Your task to perform on an android device: toggle notification dots Image 0: 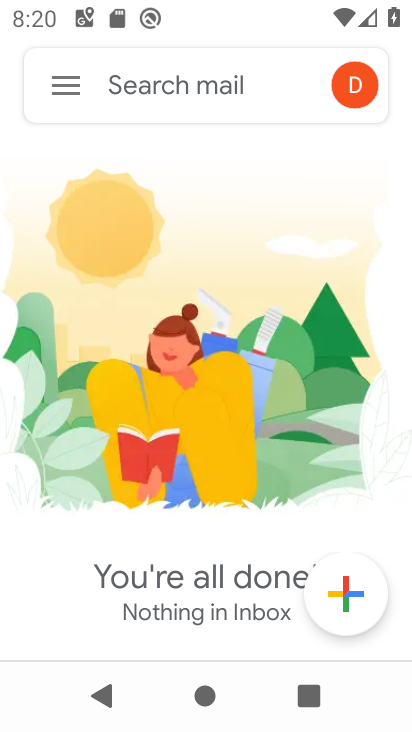
Step 0: press back button
Your task to perform on an android device: toggle notification dots Image 1: 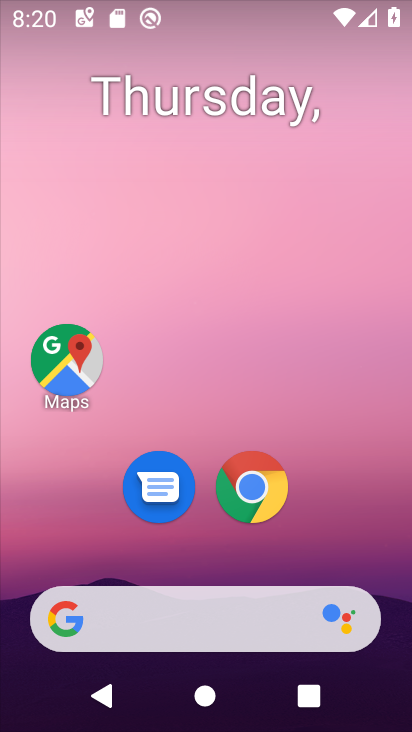
Step 1: drag from (161, 559) to (227, 19)
Your task to perform on an android device: toggle notification dots Image 2: 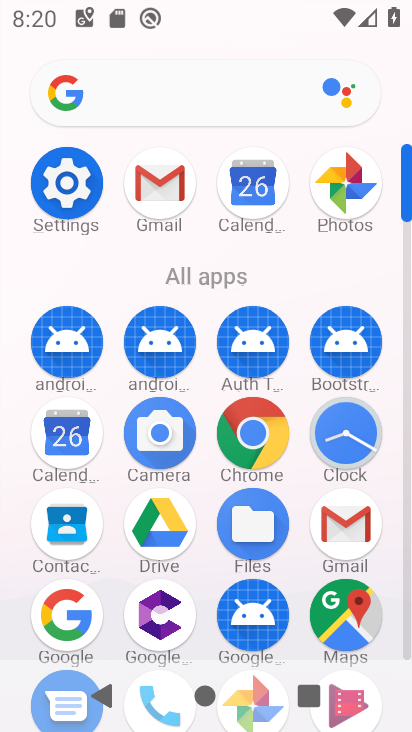
Step 2: click (54, 159)
Your task to perform on an android device: toggle notification dots Image 3: 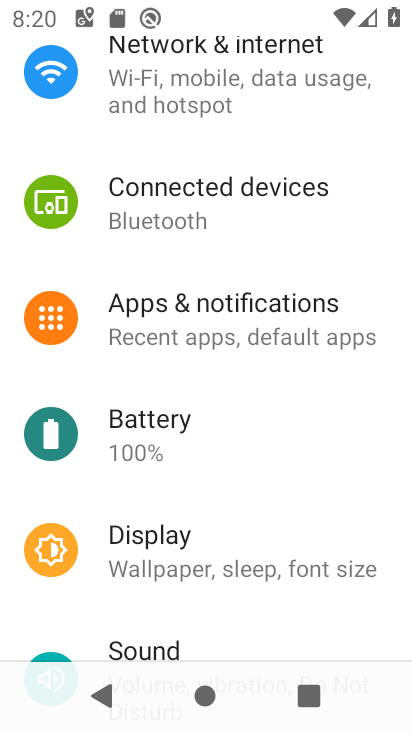
Step 3: drag from (300, 209) to (284, 467)
Your task to perform on an android device: toggle notification dots Image 4: 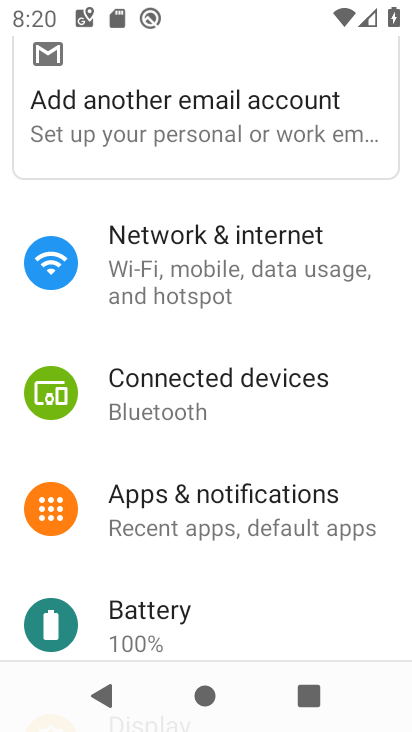
Step 4: click (203, 511)
Your task to perform on an android device: toggle notification dots Image 5: 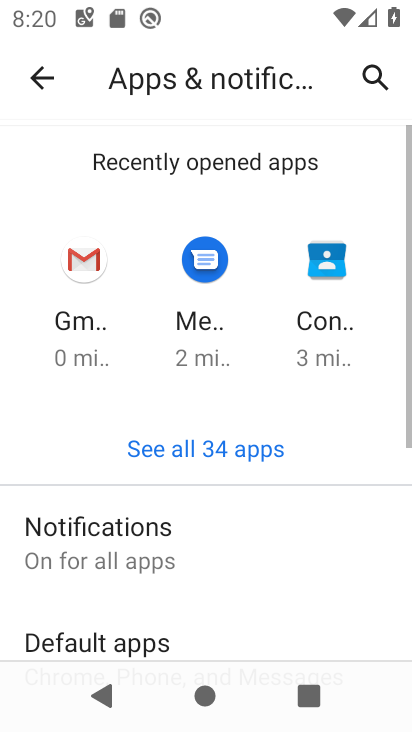
Step 5: click (199, 538)
Your task to perform on an android device: toggle notification dots Image 6: 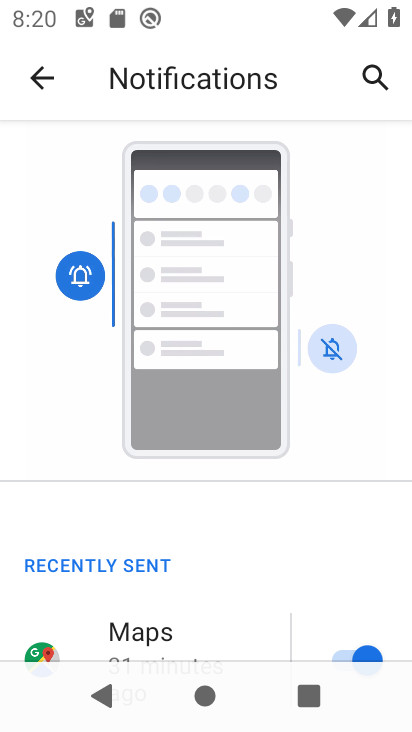
Step 6: drag from (160, 569) to (223, 225)
Your task to perform on an android device: toggle notification dots Image 7: 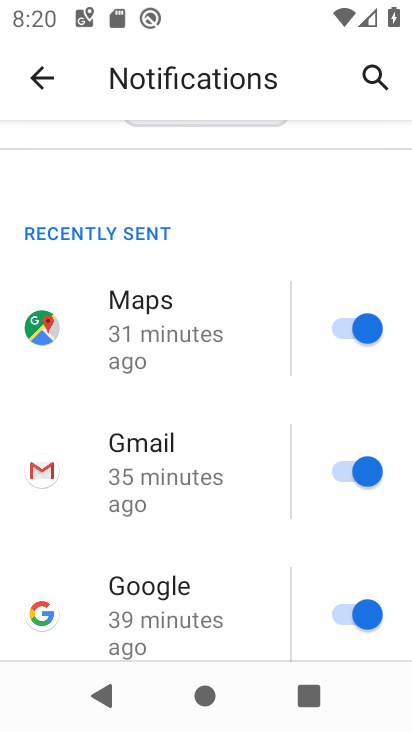
Step 7: drag from (217, 611) to (236, 172)
Your task to perform on an android device: toggle notification dots Image 8: 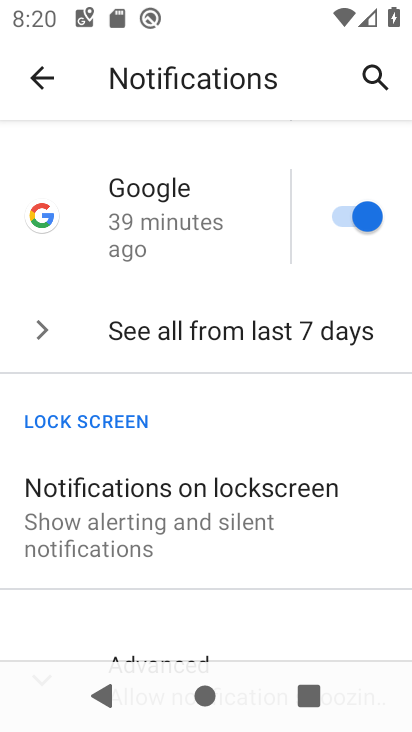
Step 8: drag from (192, 562) to (222, 71)
Your task to perform on an android device: toggle notification dots Image 9: 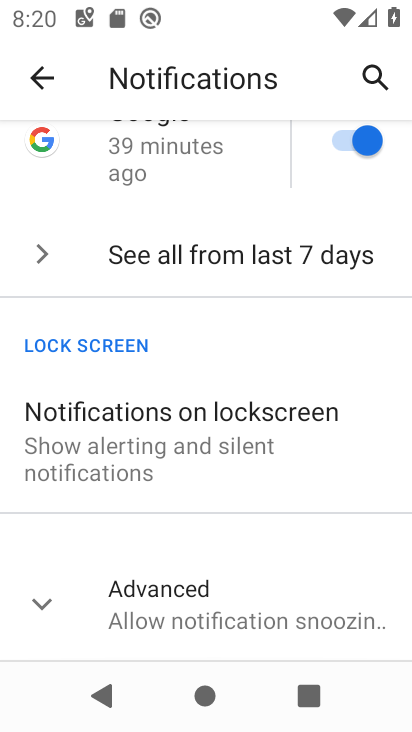
Step 9: click (162, 590)
Your task to perform on an android device: toggle notification dots Image 10: 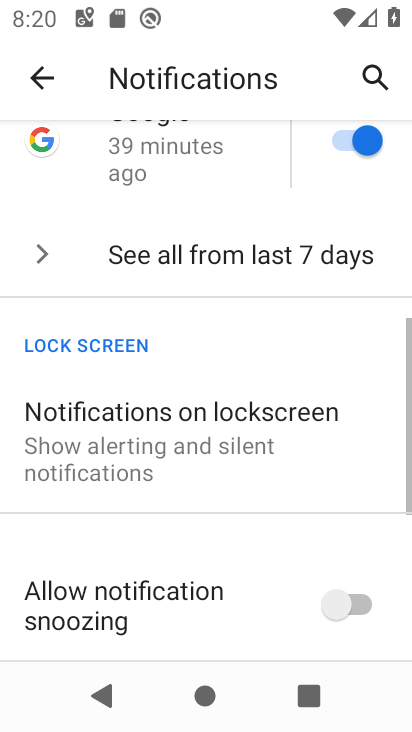
Step 10: drag from (173, 606) to (256, 139)
Your task to perform on an android device: toggle notification dots Image 11: 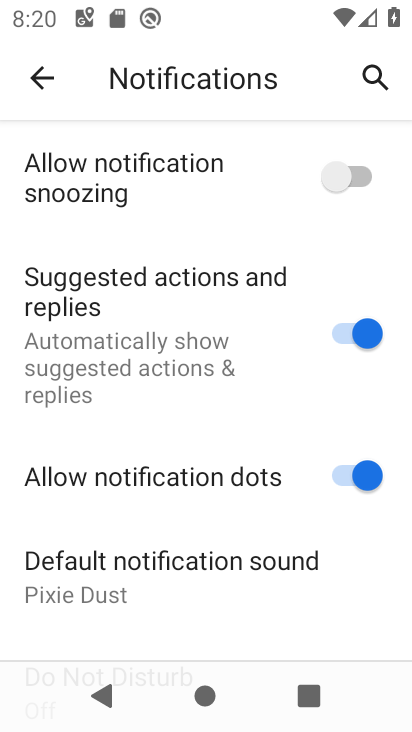
Step 11: click (356, 474)
Your task to perform on an android device: toggle notification dots Image 12: 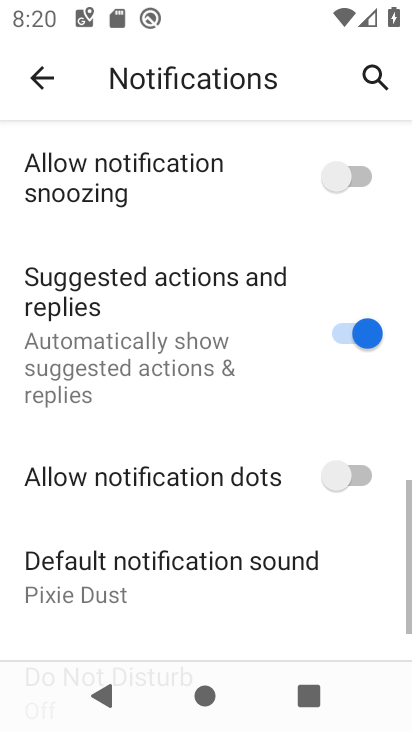
Step 12: task complete